Your task to perform on an android device: turn off smart reply in the gmail app Image 0: 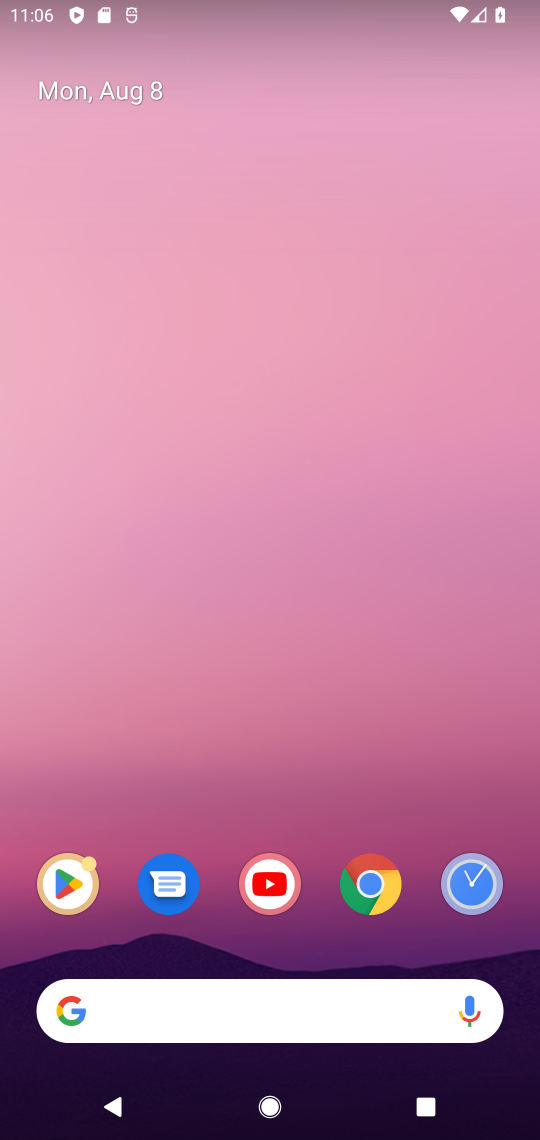
Step 0: drag from (309, 781) to (325, 223)
Your task to perform on an android device: turn off smart reply in the gmail app Image 1: 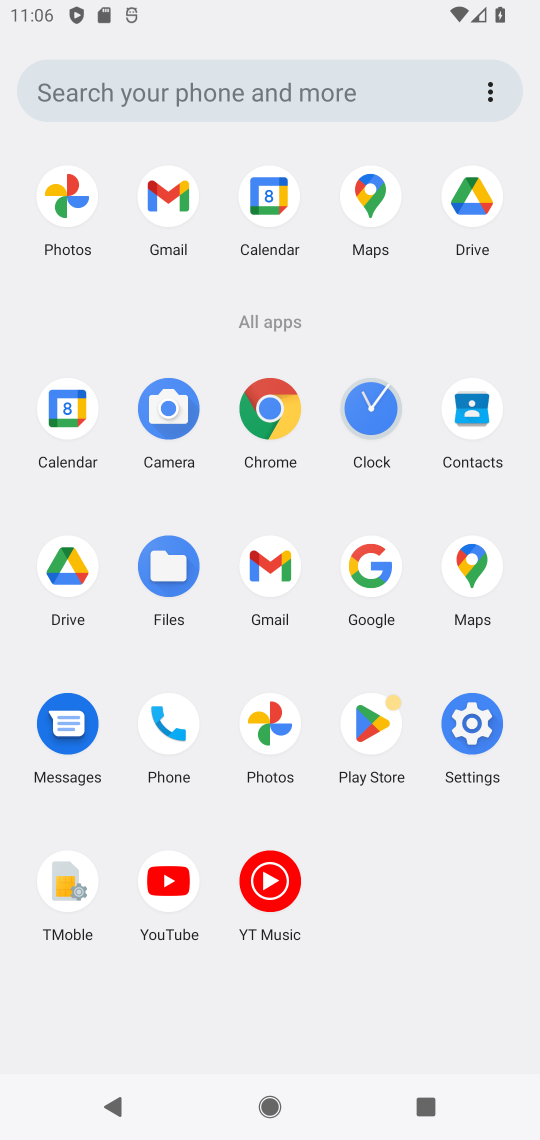
Step 1: click (275, 562)
Your task to perform on an android device: turn off smart reply in the gmail app Image 2: 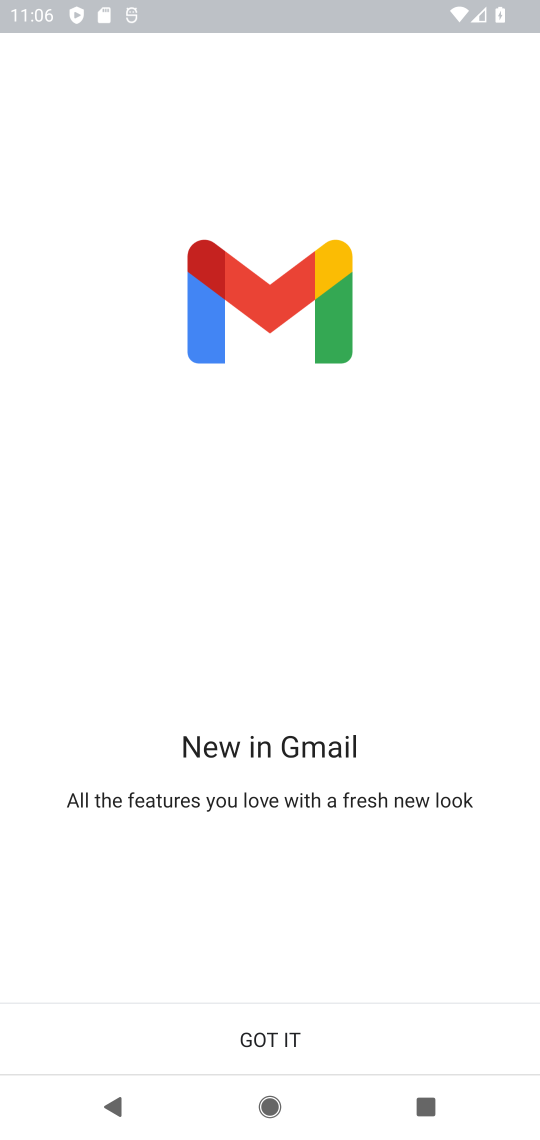
Step 2: click (255, 1029)
Your task to perform on an android device: turn off smart reply in the gmail app Image 3: 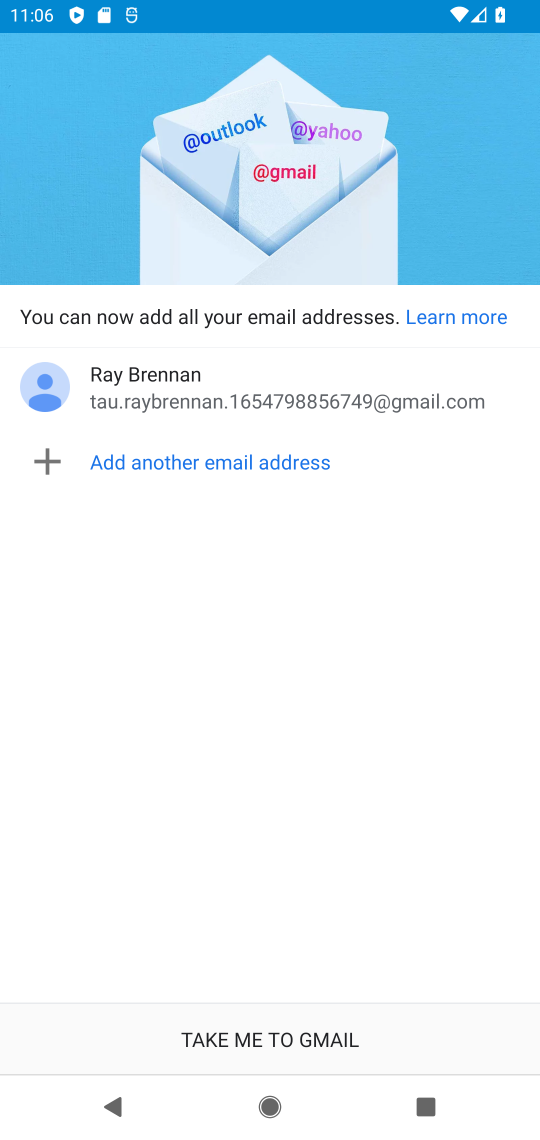
Step 3: click (255, 1029)
Your task to perform on an android device: turn off smart reply in the gmail app Image 4: 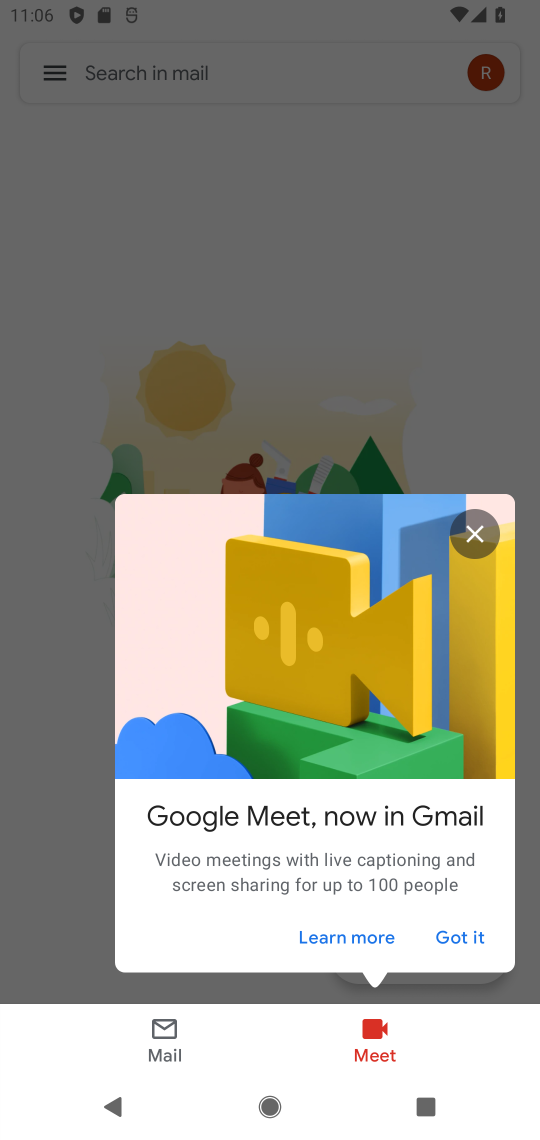
Step 4: click (454, 933)
Your task to perform on an android device: turn off smart reply in the gmail app Image 5: 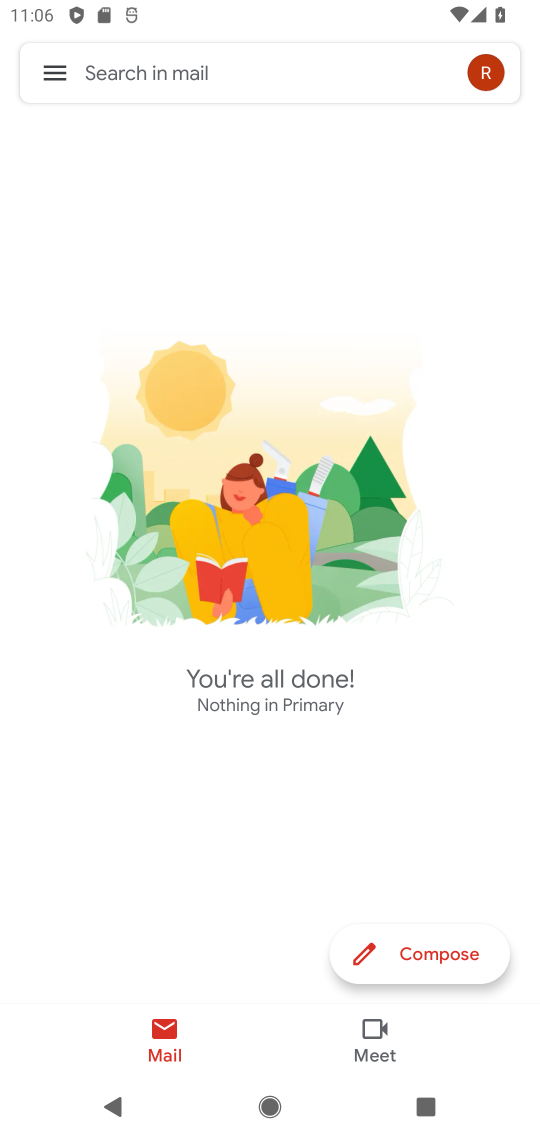
Step 5: click (59, 65)
Your task to perform on an android device: turn off smart reply in the gmail app Image 6: 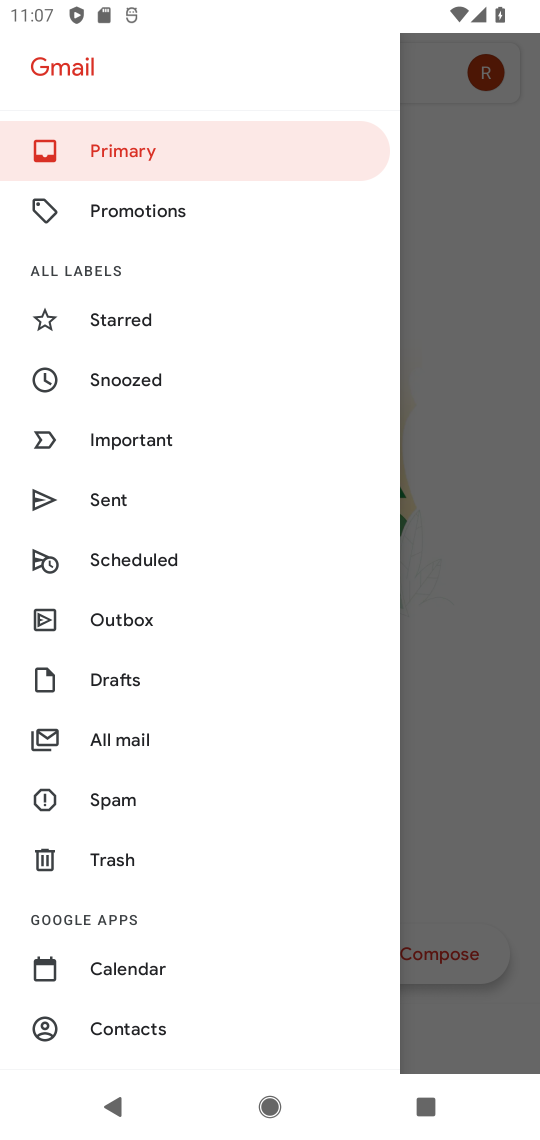
Step 6: drag from (134, 945) to (154, 666)
Your task to perform on an android device: turn off smart reply in the gmail app Image 7: 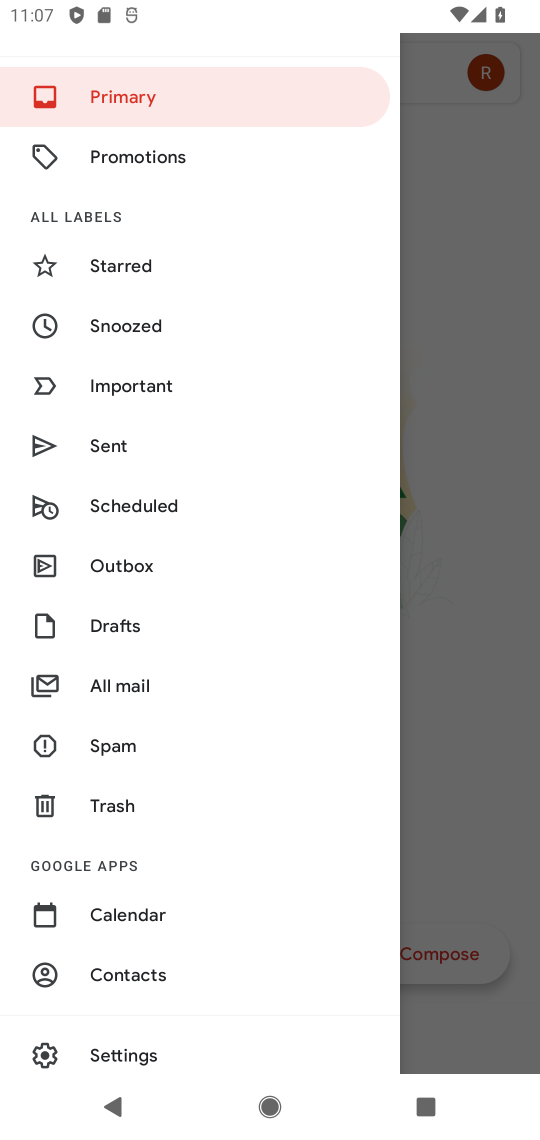
Step 7: click (106, 1055)
Your task to perform on an android device: turn off smart reply in the gmail app Image 8: 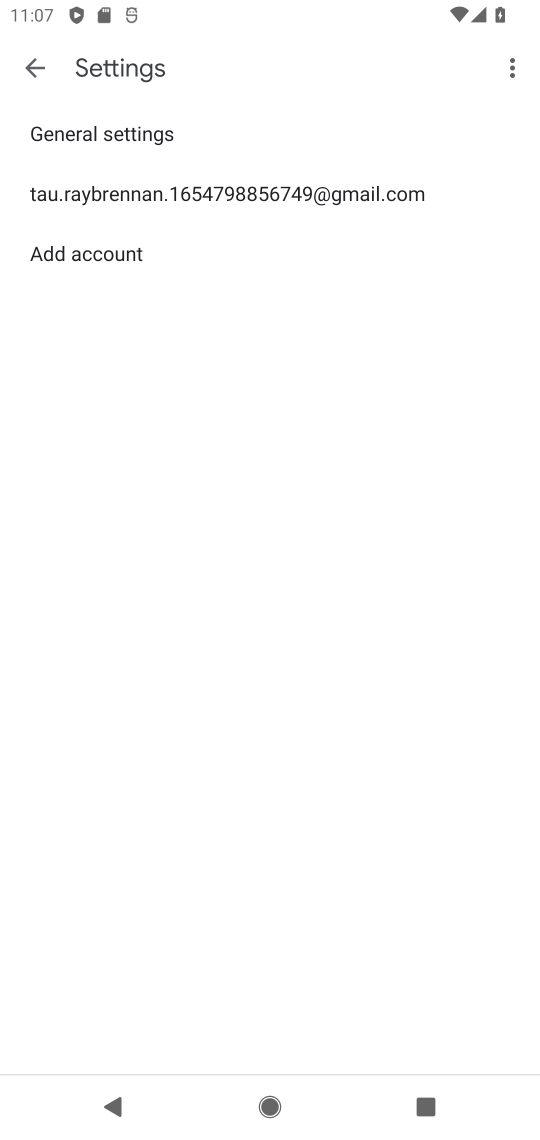
Step 8: click (246, 181)
Your task to perform on an android device: turn off smart reply in the gmail app Image 9: 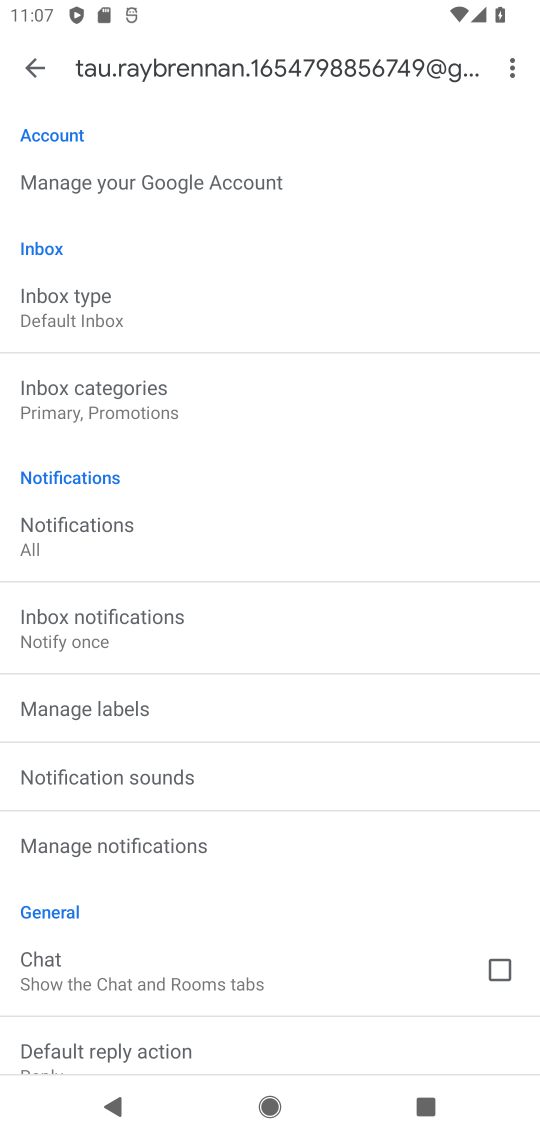
Step 9: drag from (99, 856) to (169, 450)
Your task to perform on an android device: turn off smart reply in the gmail app Image 10: 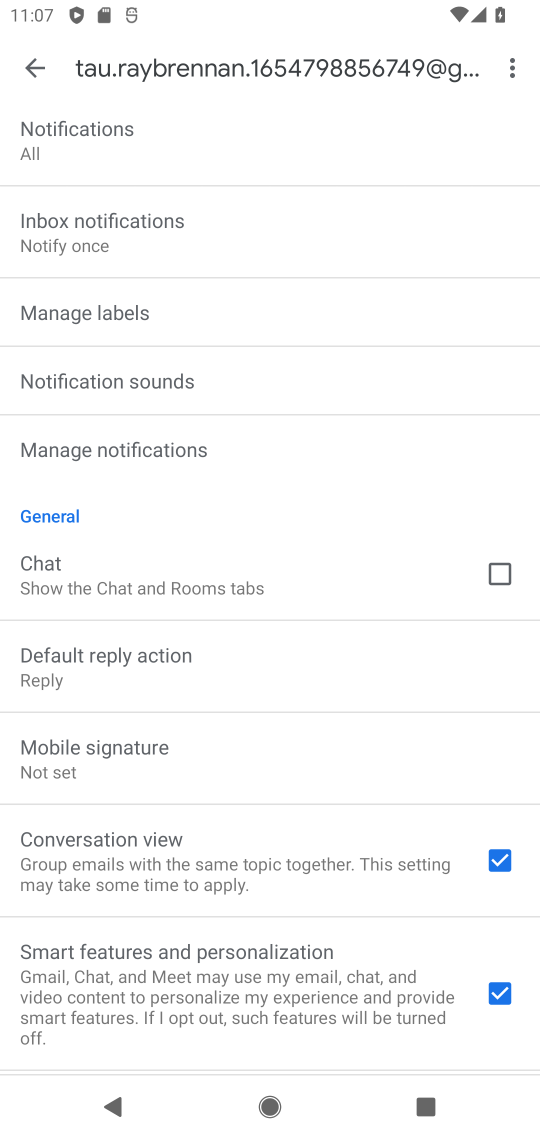
Step 10: drag from (319, 804) to (321, 460)
Your task to perform on an android device: turn off smart reply in the gmail app Image 11: 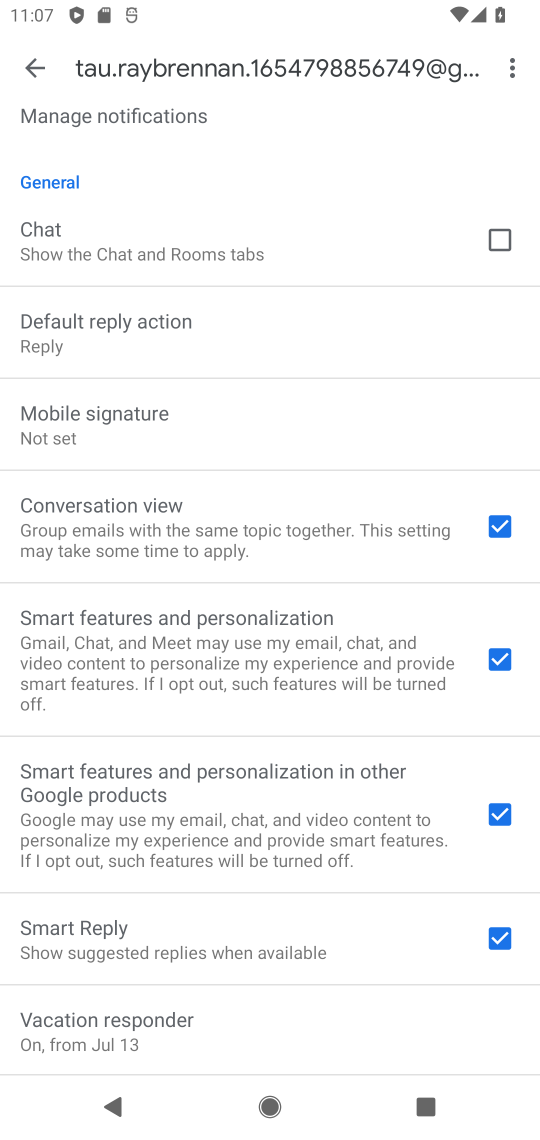
Step 11: click (514, 929)
Your task to perform on an android device: turn off smart reply in the gmail app Image 12: 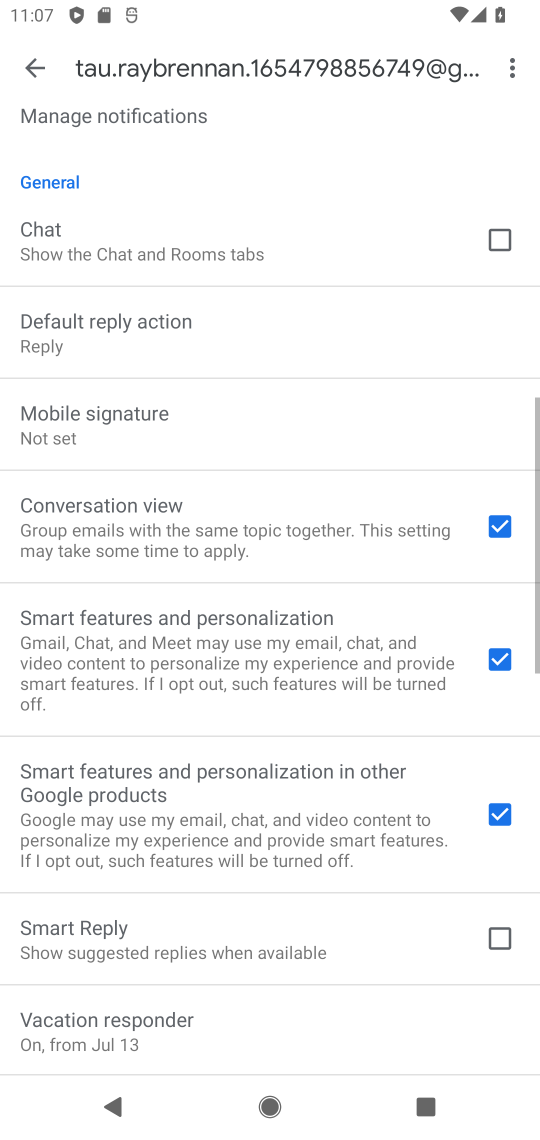
Step 12: task complete